Your task to perform on an android device: snooze an email in the gmail app Image 0: 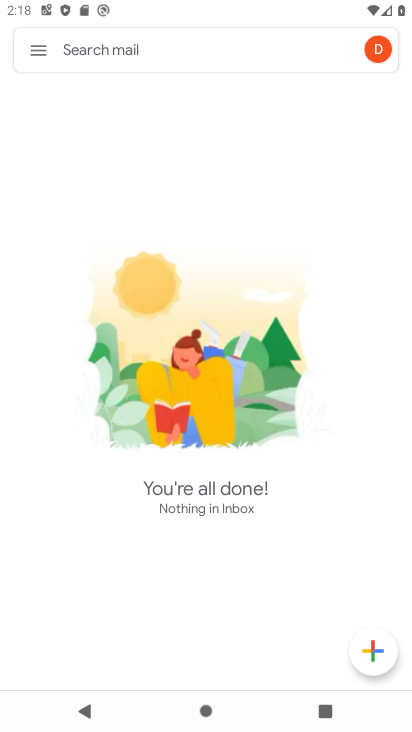
Step 0: press home button
Your task to perform on an android device: snooze an email in the gmail app Image 1: 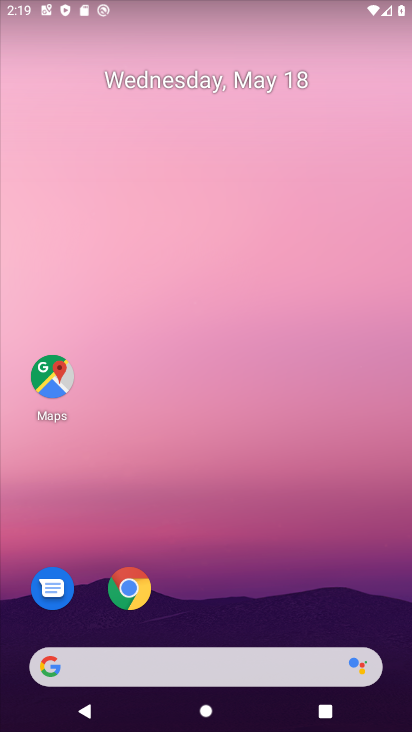
Step 1: drag from (313, 555) to (321, 156)
Your task to perform on an android device: snooze an email in the gmail app Image 2: 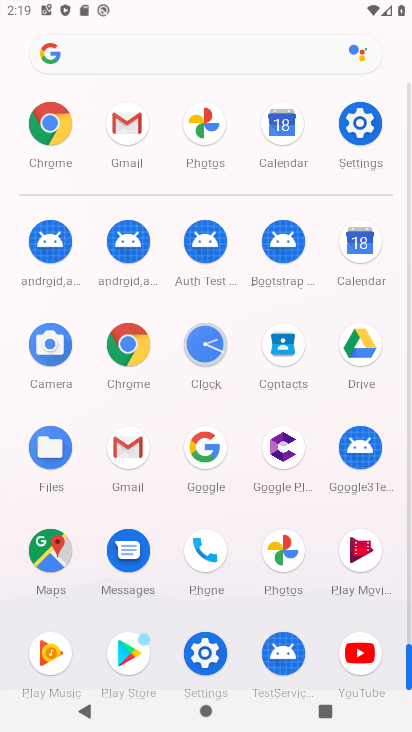
Step 2: click (129, 452)
Your task to perform on an android device: snooze an email in the gmail app Image 3: 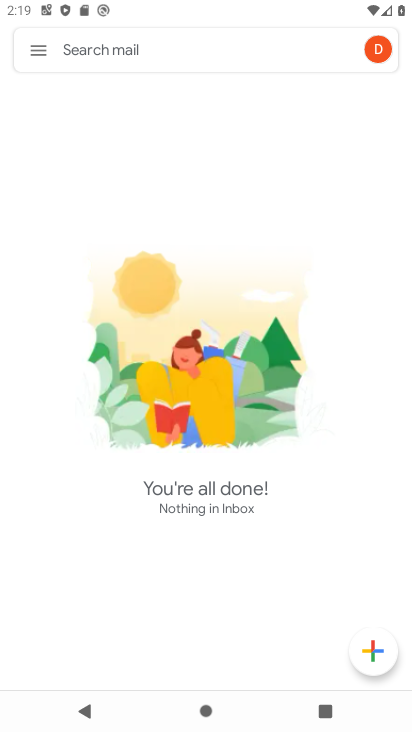
Step 3: click (33, 60)
Your task to perform on an android device: snooze an email in the gmail app Image 4: 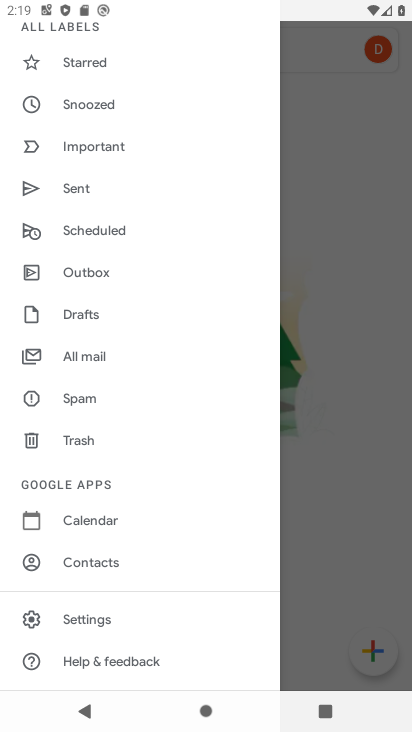
Step 4: drag from (183, 260) to (190, 435)
Your task to perform on an android device: snooze an email in the gmail app Image 5: 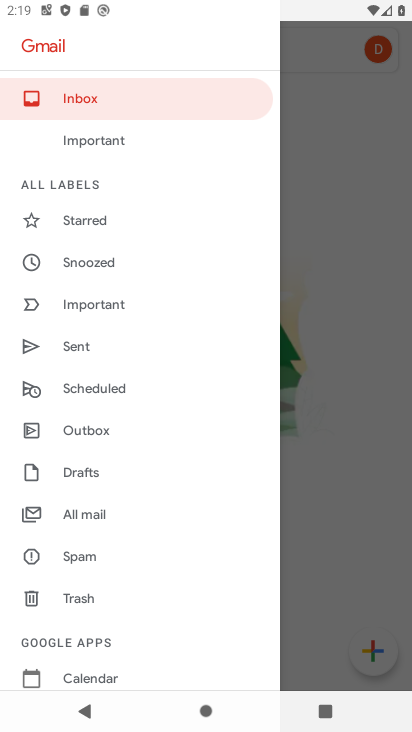
Step 5: click (112, 266)
Your task to perform on an android device: snooze an email in the gmail app Image 6: 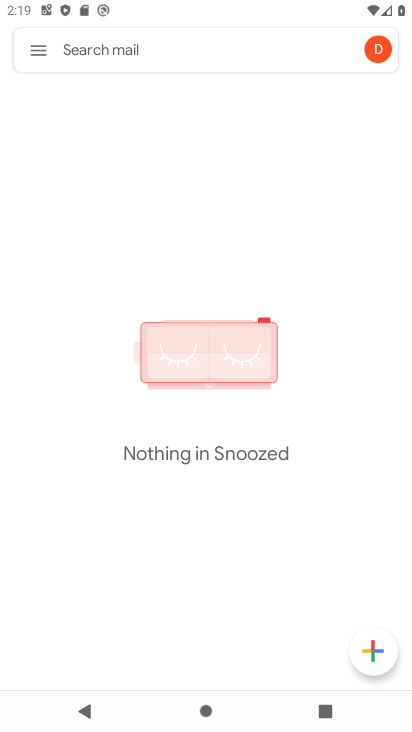
Step 6: task complete